Your task to perform on an android device: Open settings on Google Maps Image 0: 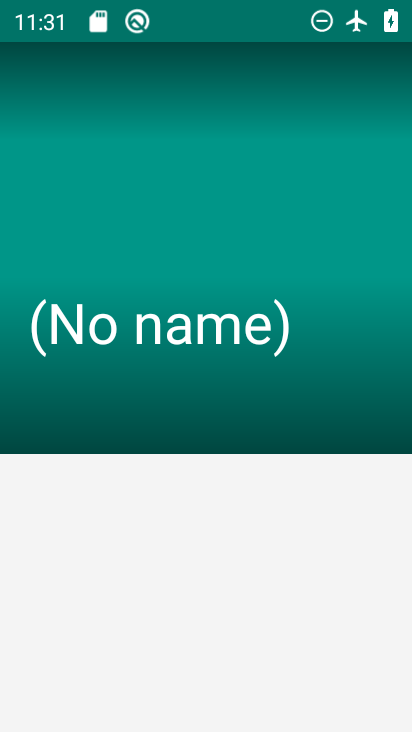
Step 0: drag from (348, 501) to (282, 111)
Your task to perform on an android device: Open settings on Google Maps Image 1: 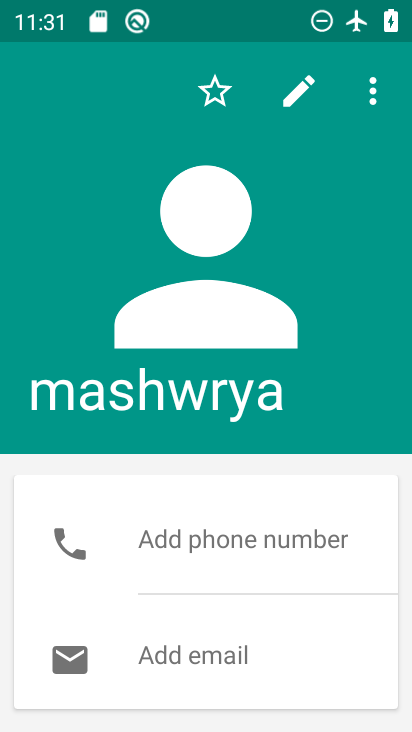
Step 1: press home button
Your task to perform on an android device: Open settings on Google Maps Image 2: 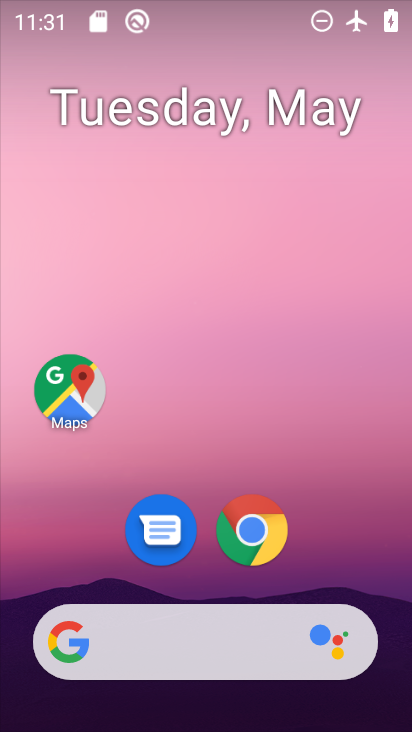
Step 2: click (63, 400)
Your task to perform on an android device: Open settings on Google Maps Image 3: 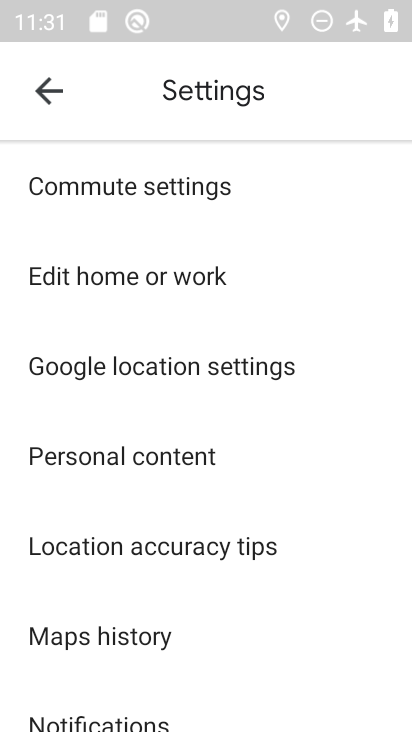
Step 3: task complete